Your task to perform on an android device: toggle wifi Image 0: 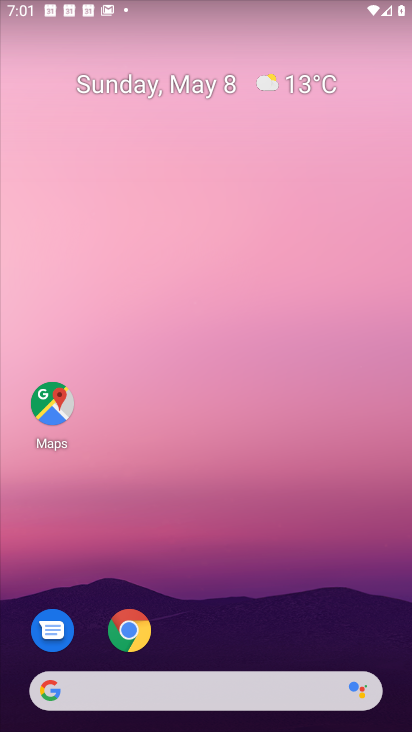
Step 0: click (295, 579)
Your task to perform on an android device: toggle wifi Image 1: 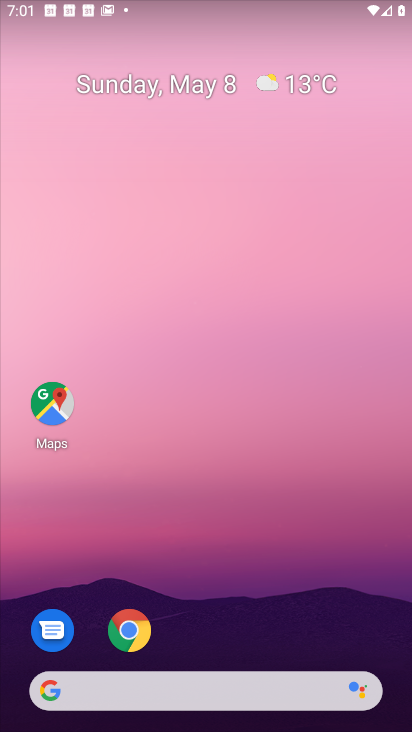
Step 1: drag from (248, 619) to (246, 142)
Your task to perform on an android device: toggle wifi Image 2: 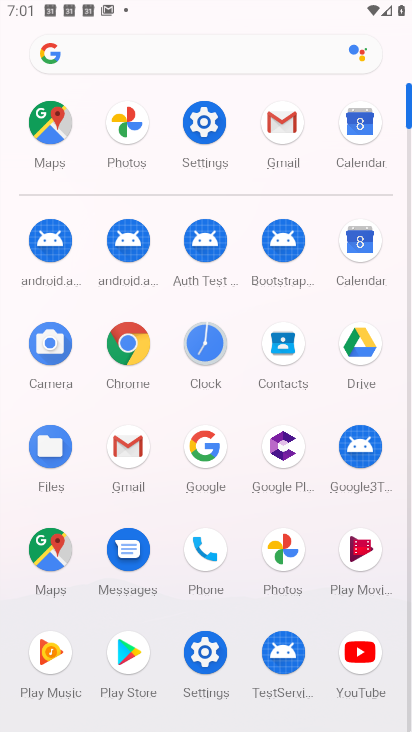
Step 2: click (201, 121)
Your task to perform on an android device: toggle wifi Image 3: 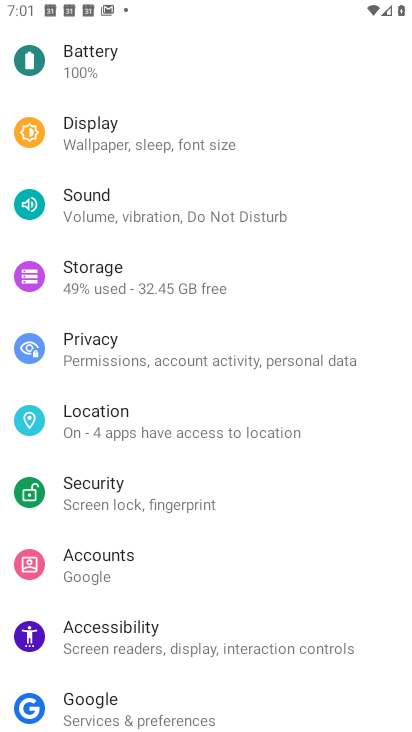
Step 3: drag from (261, 251) to (306, 615)
Your task to perform on an android device: toggle wifi Image 4: 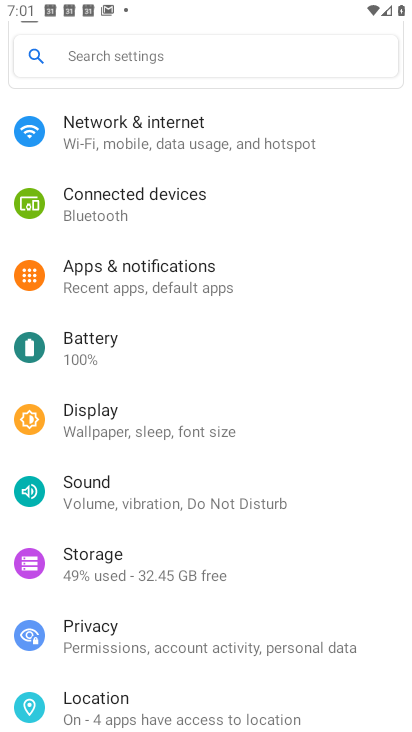
Step 4: click (99, 128)
Your task to perform on an android device: toggle wifi Image 5: 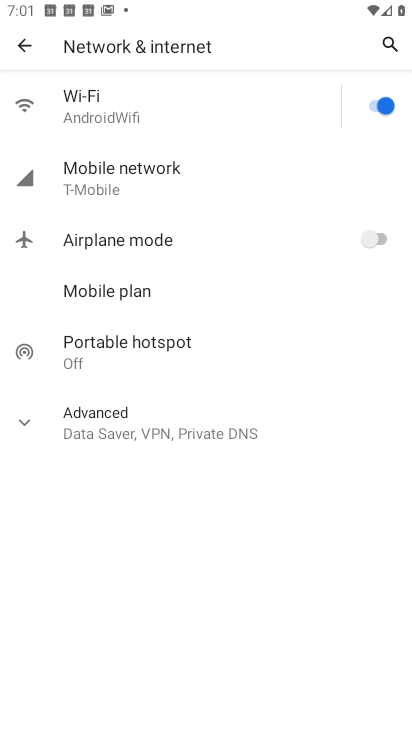
Step 5: click (380, 104)
Your task to perform on an android device: toggle wifi Image 6: 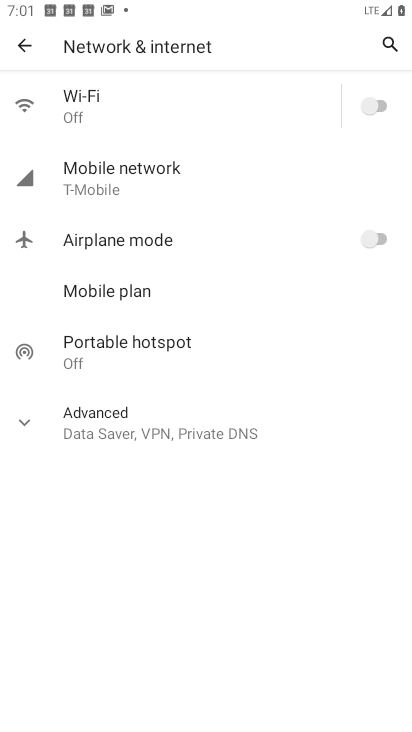
Step 6: task complete